Your task to perform on an android device: Open my contact list Image 0: 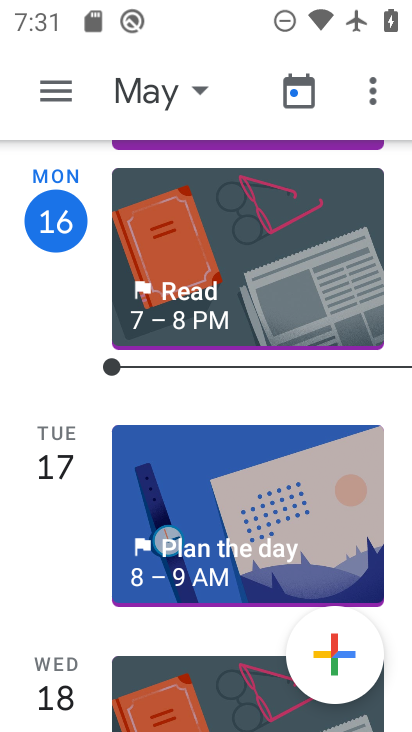
Step 0: press home button
Your task to perform on an android device: Open my contact list Image 1: 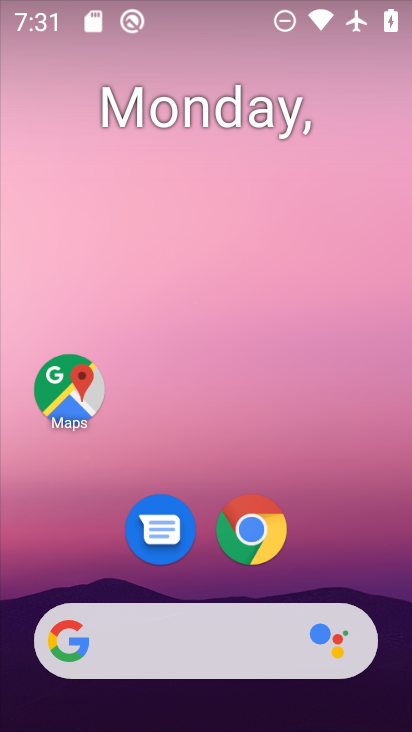
Step 1: drag from (281, 402) to (210, 33)
Your task to perform on an android device: Open my contact list Image 2: 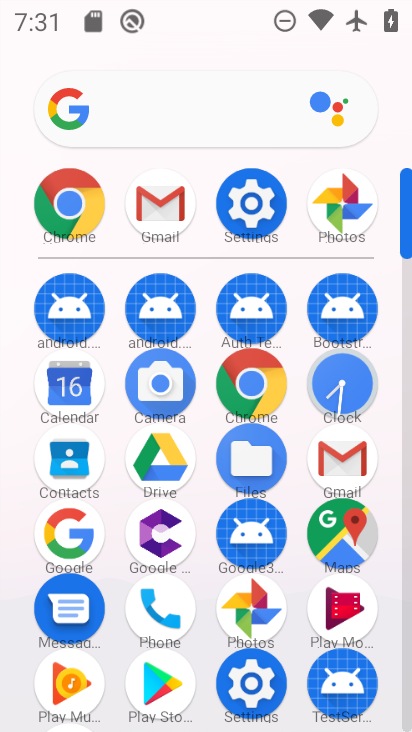
Step 2: click (68, 459)
Your task to perform on an android device: Open my contact list Image 3: 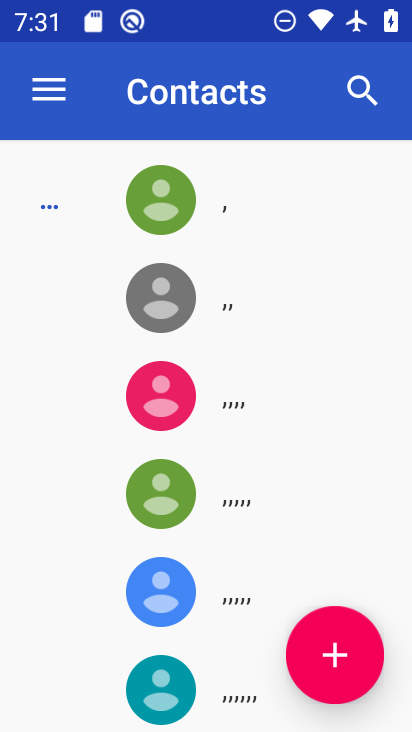
Step 3: task complete